Your task to perform on an android device: Check the news Image 0: 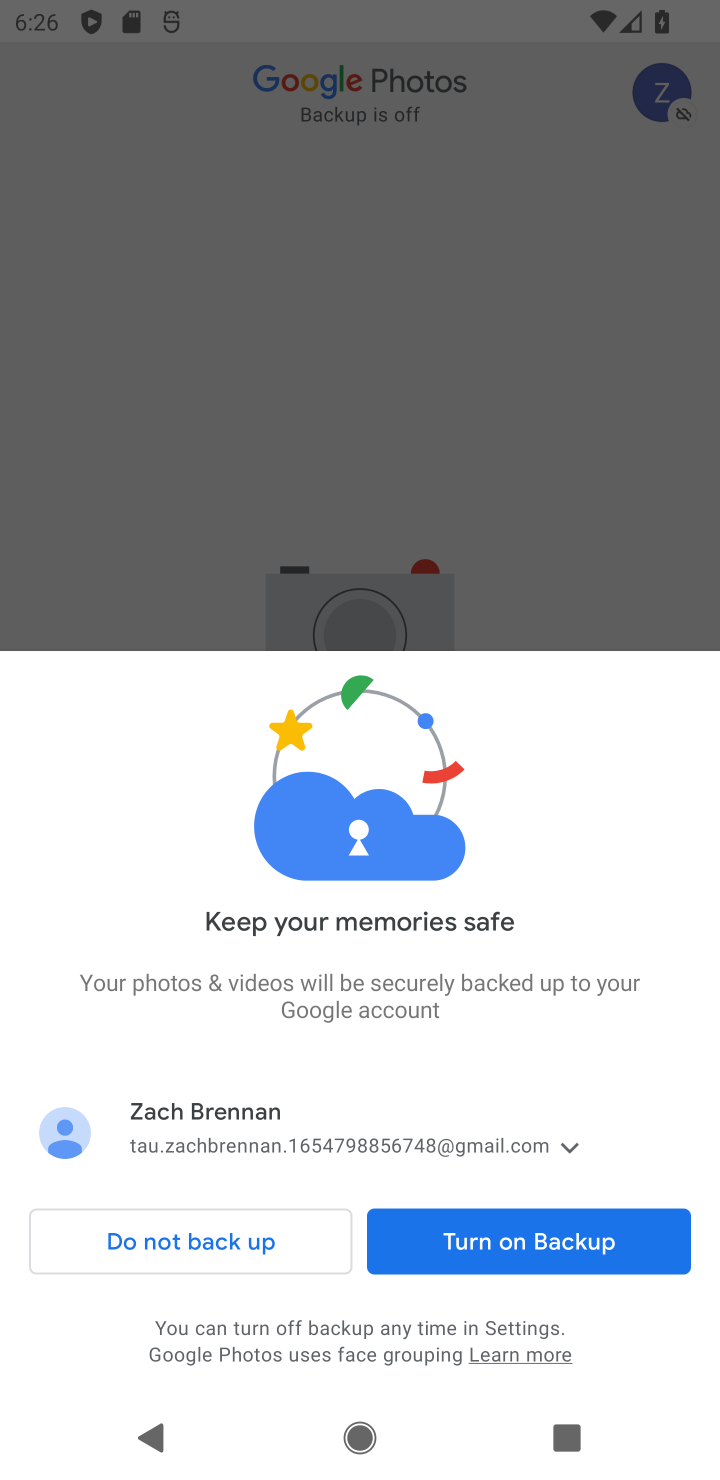
Step 0: press home button
Your task to perform on an android device: Check the news Image 1: 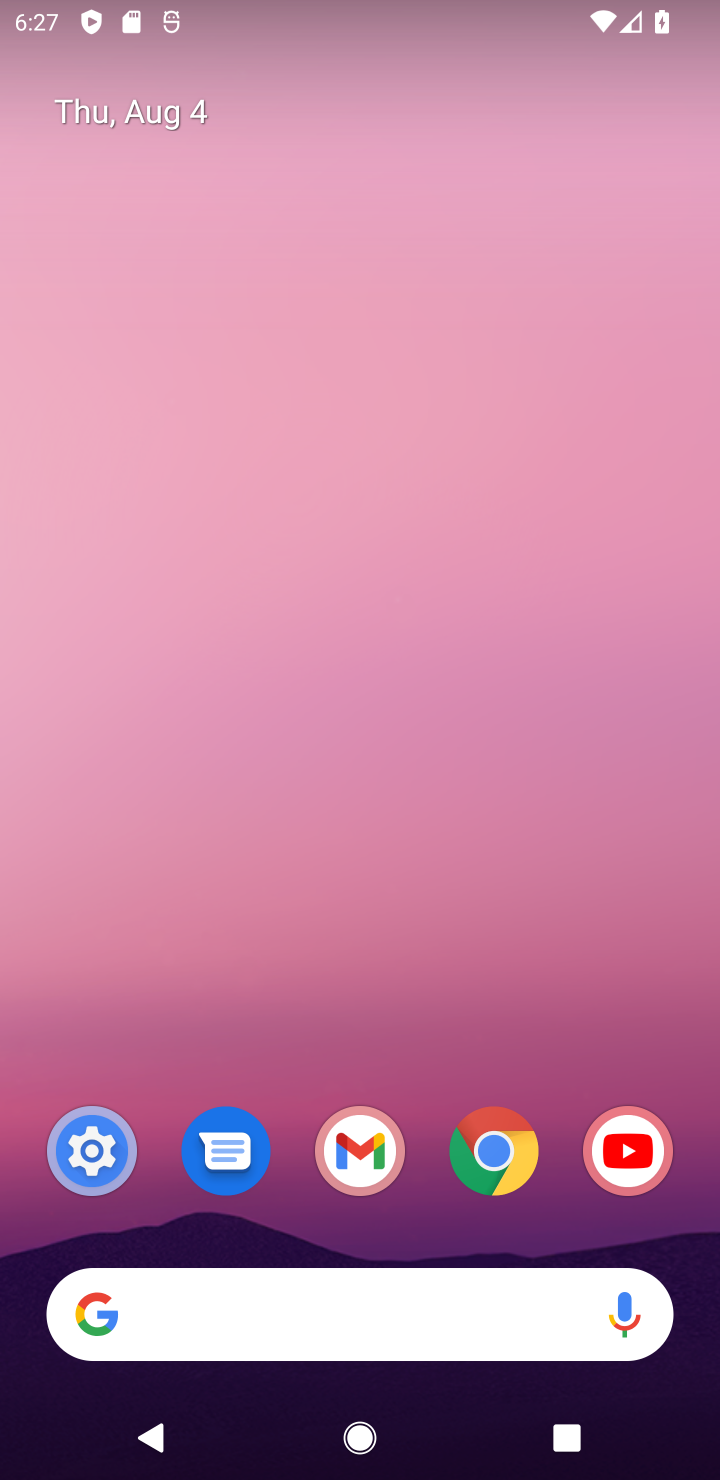
Step 1: drag from (355, 925) to (337, 105)
Your task to perform on an android device: Check the news Image 2: 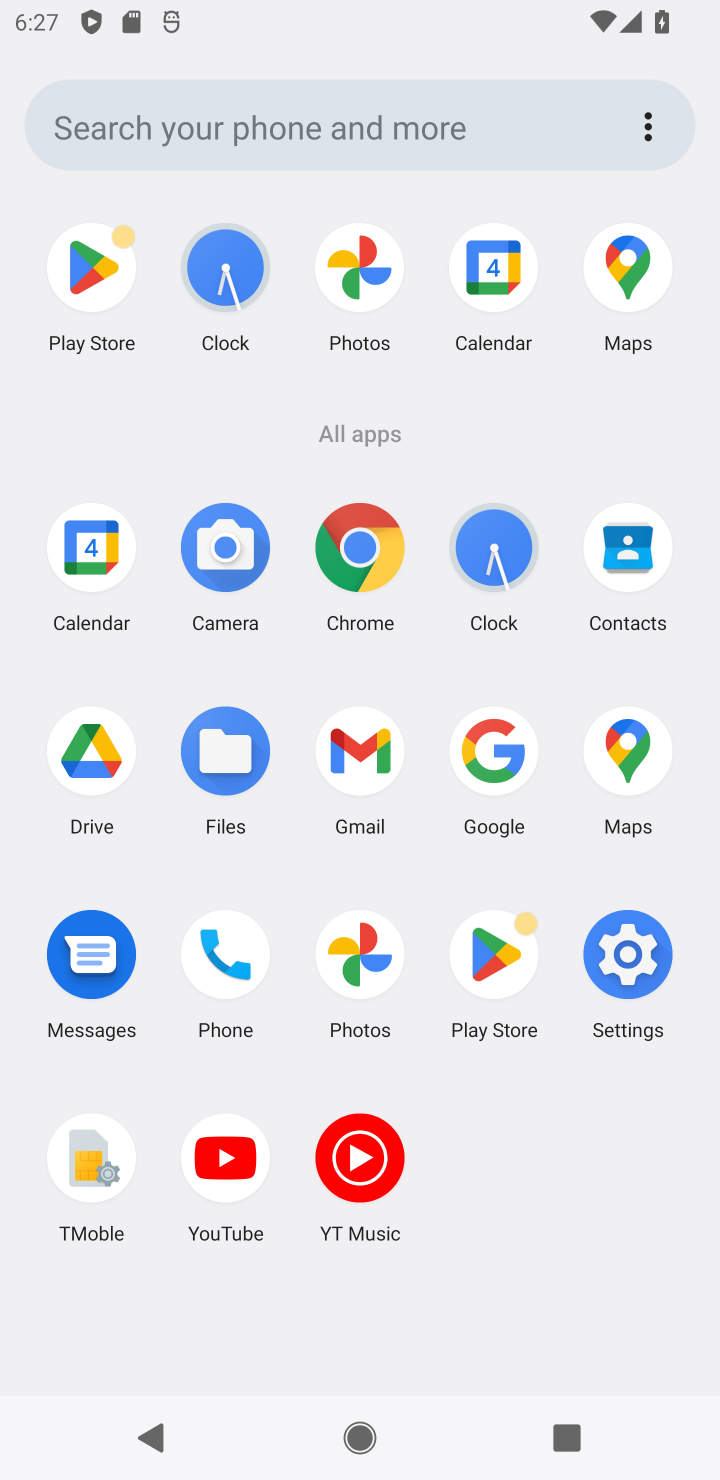
Step 2: press home button
Your task to perform on an android device: Check the news Image 3: 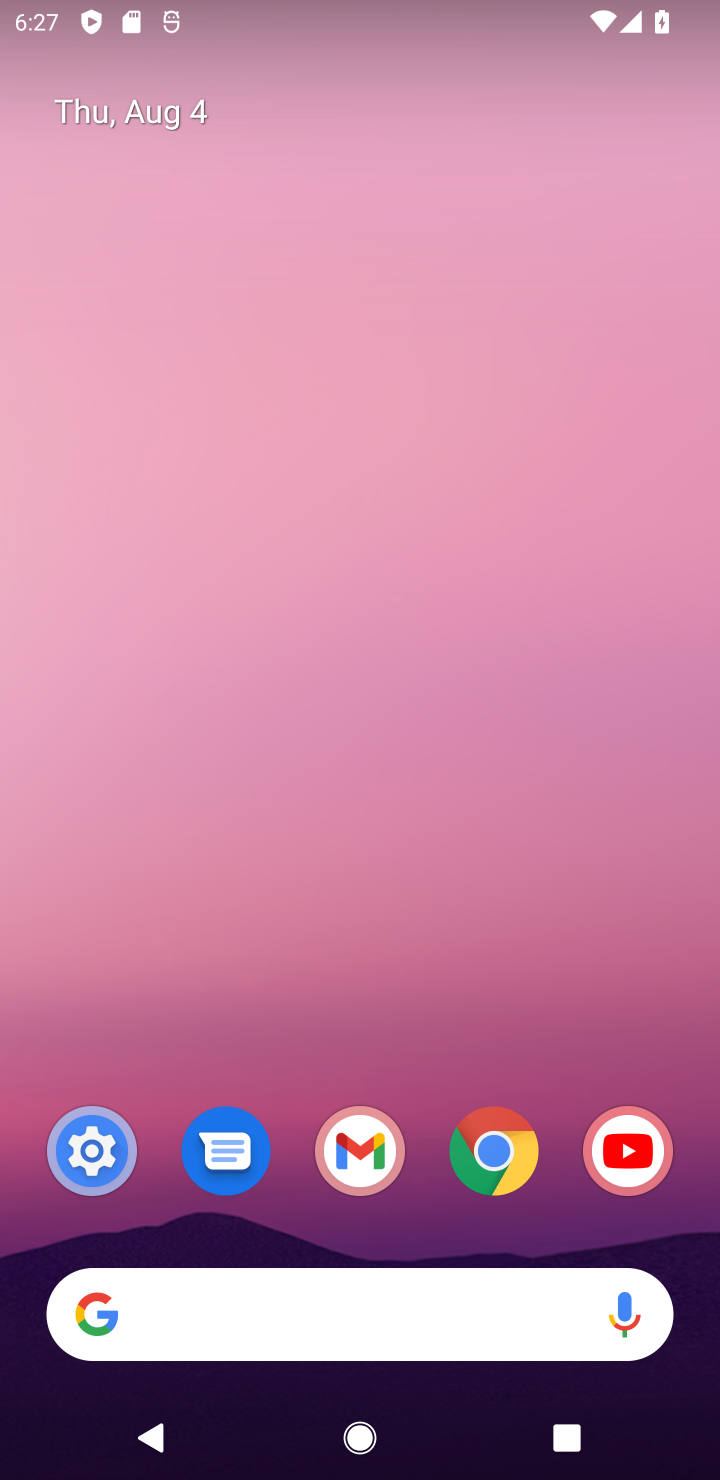
Step 3: click (386, 1332)
Your task to perform on an android device: Check the news Image 4: 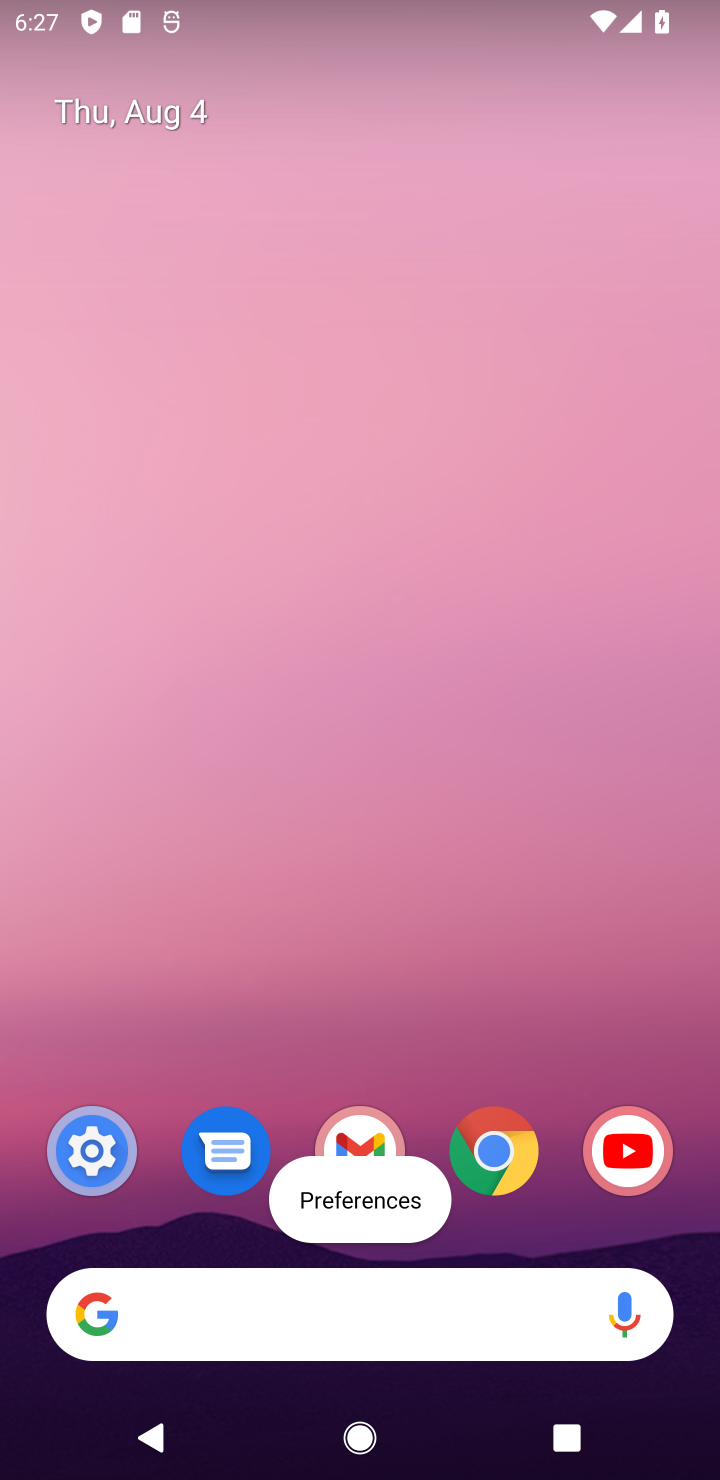
Step 4: click (380, 1324)
Your task to perform on an android device: Check the news Image 5: 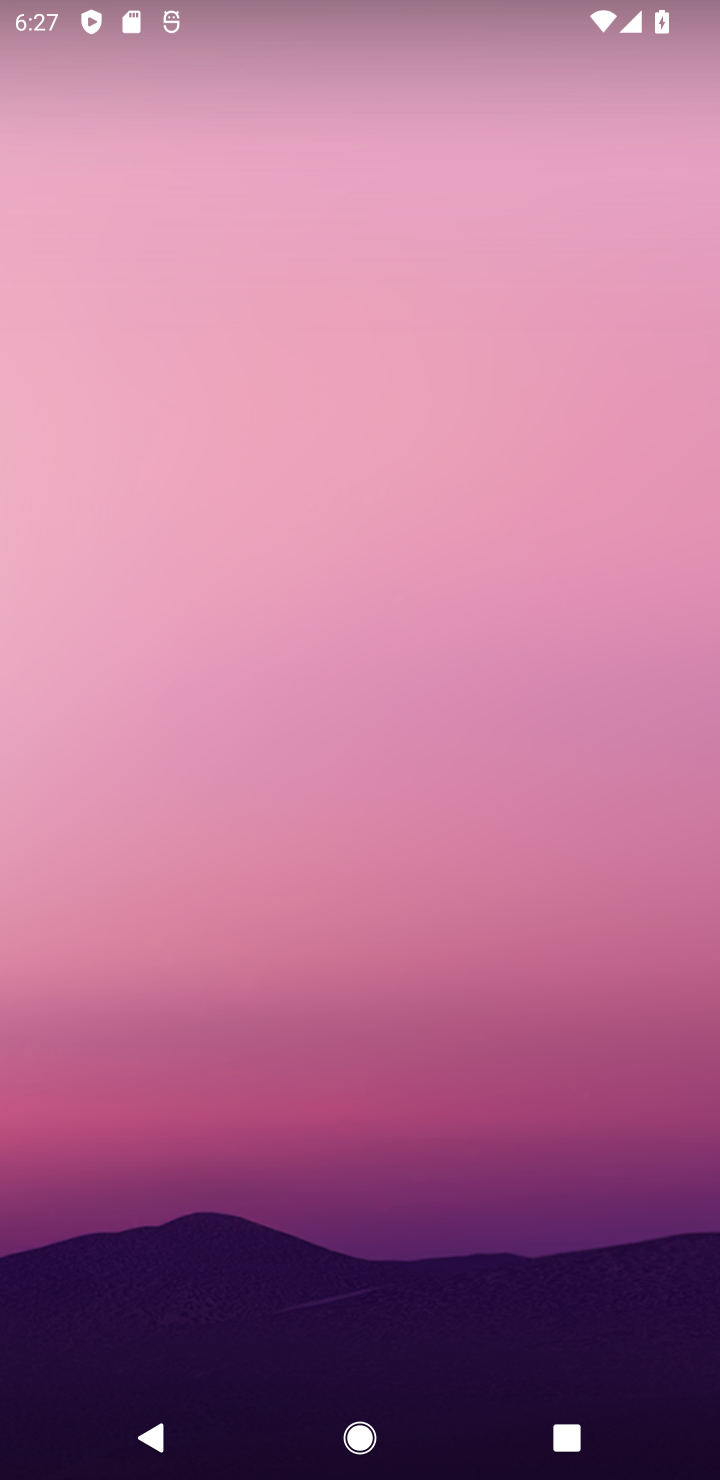
Step 5: click (376, 1326)
Your task to perform on an android device: Check the news Image 6: 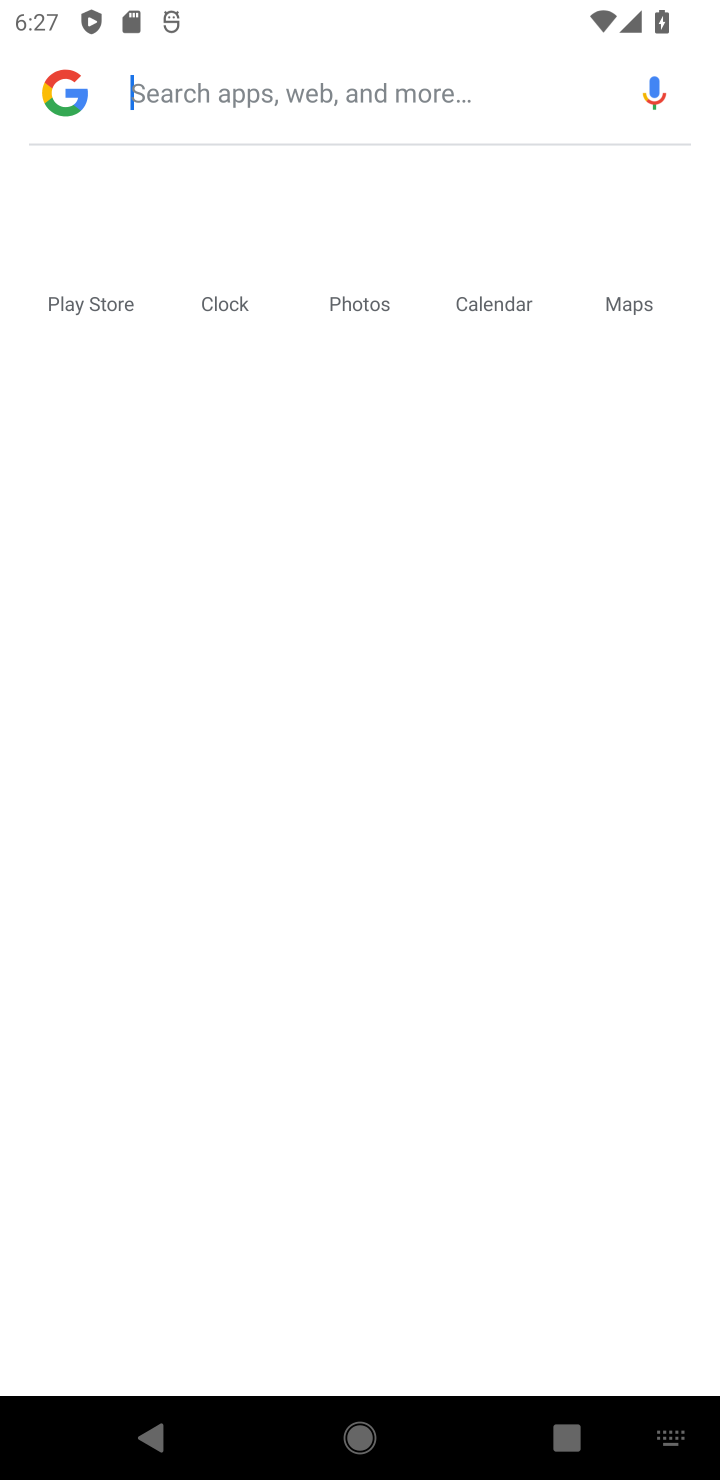
Step 6: type "news"
Your task to perform on an android device: Check the news Image 7: 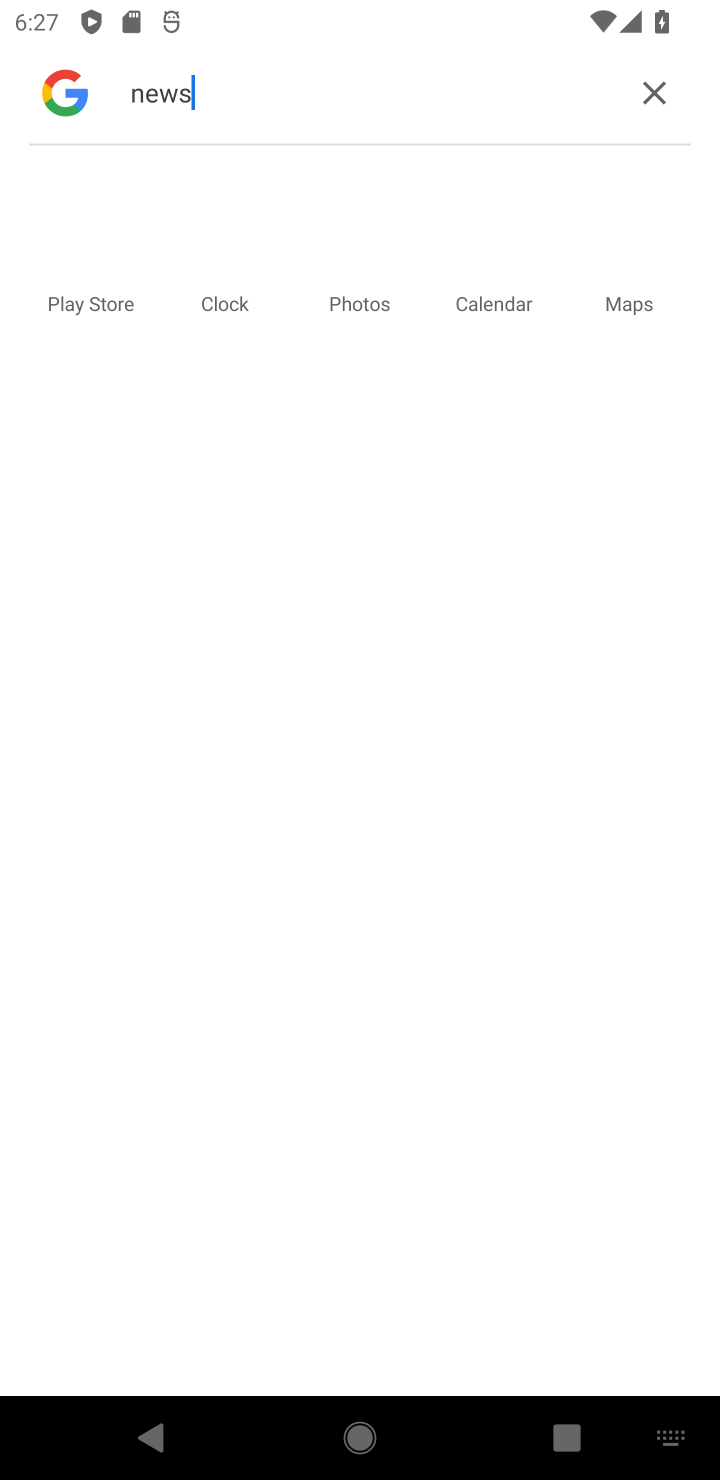
Step 7: drag from (238, 699) to (296, 959)
Your task to perform on an android device: Check the news Image 8: 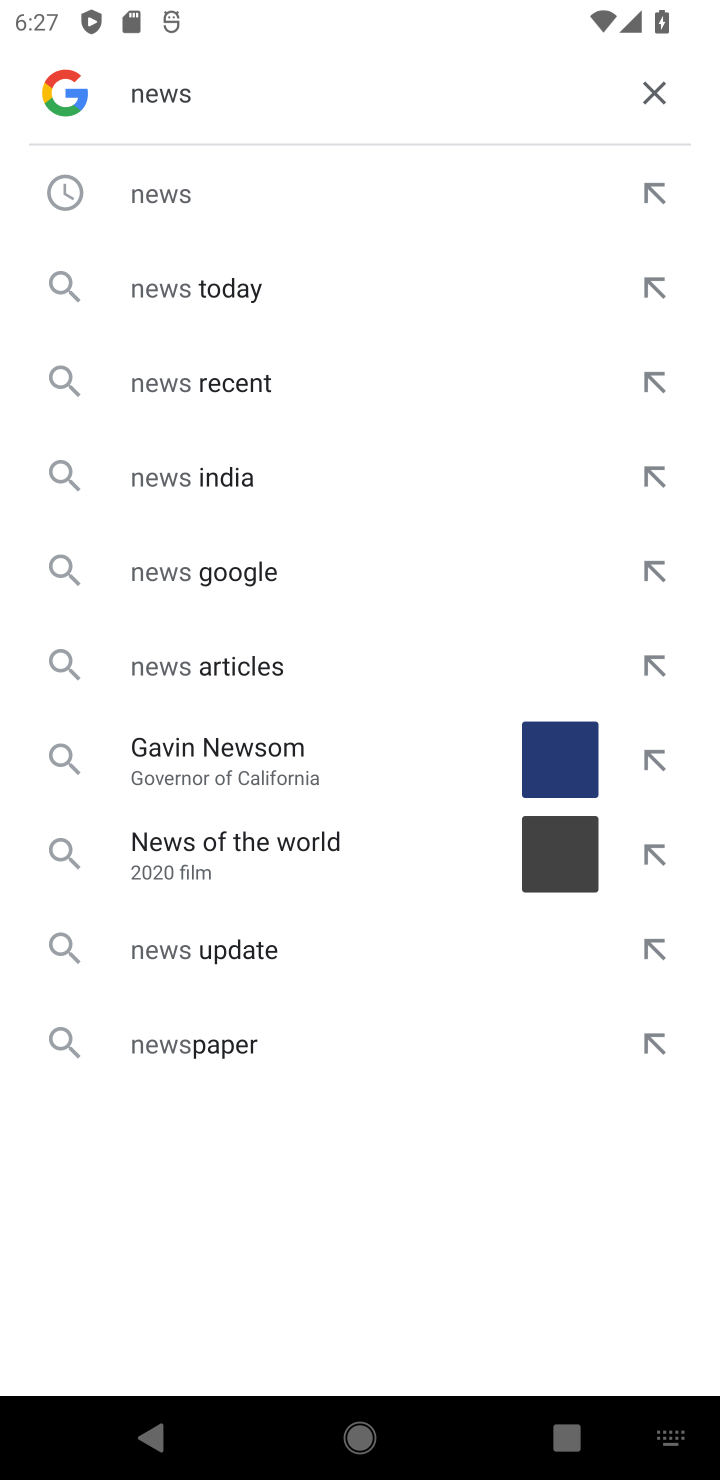
Step 8: click (175, 203)
Your task to perform on an android device: Check the news Image 9: 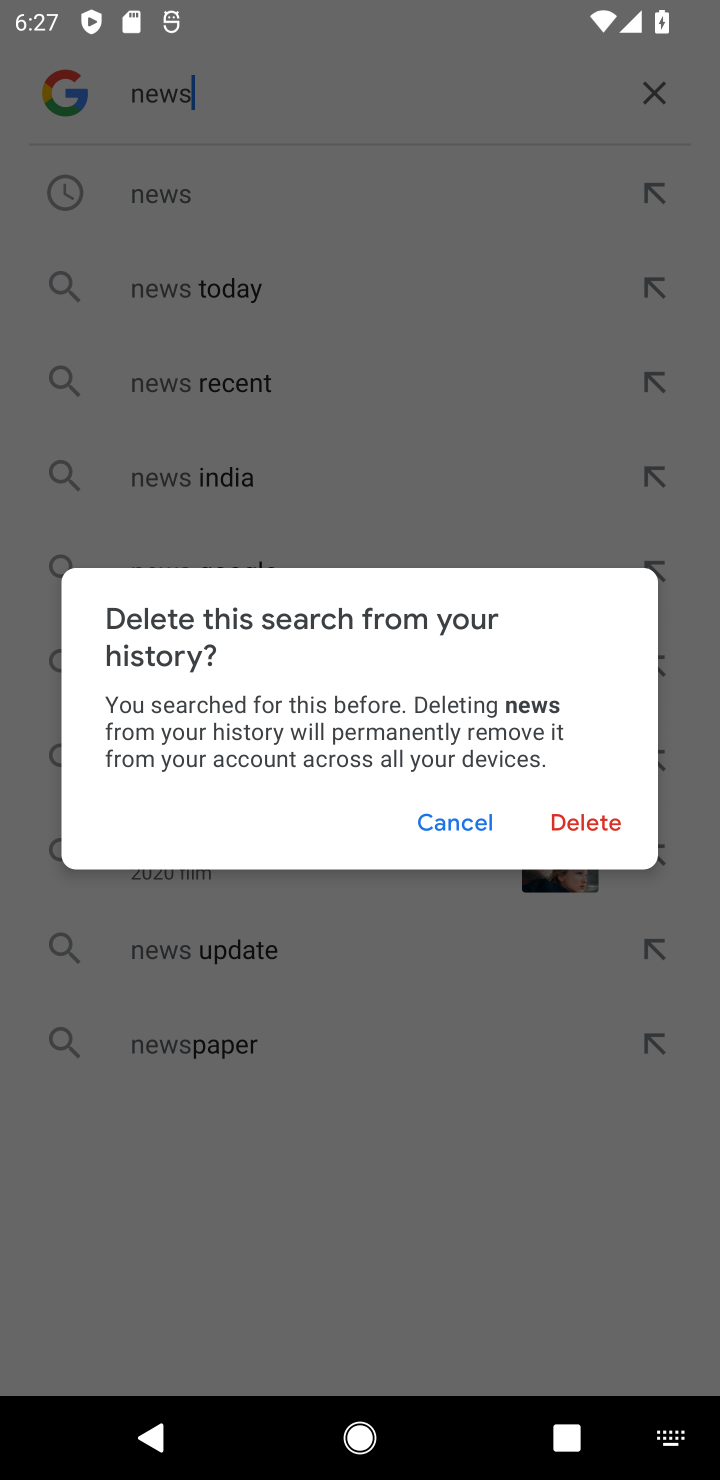
Step 9: click (472, 825)
Your task to perform on an android device: Check the news Image 10: 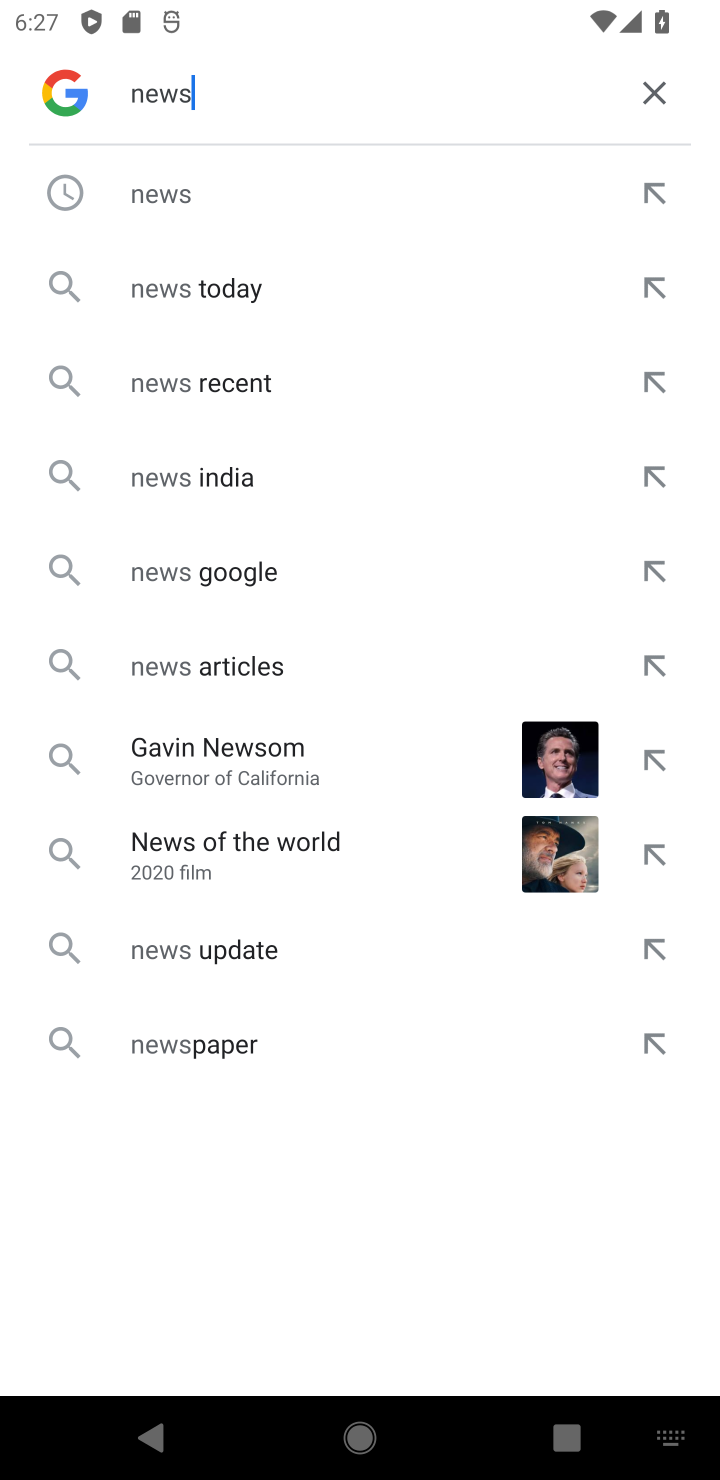
Step 10: click (195, 285)
Your task to perform on an android device: Check the news Image 11: 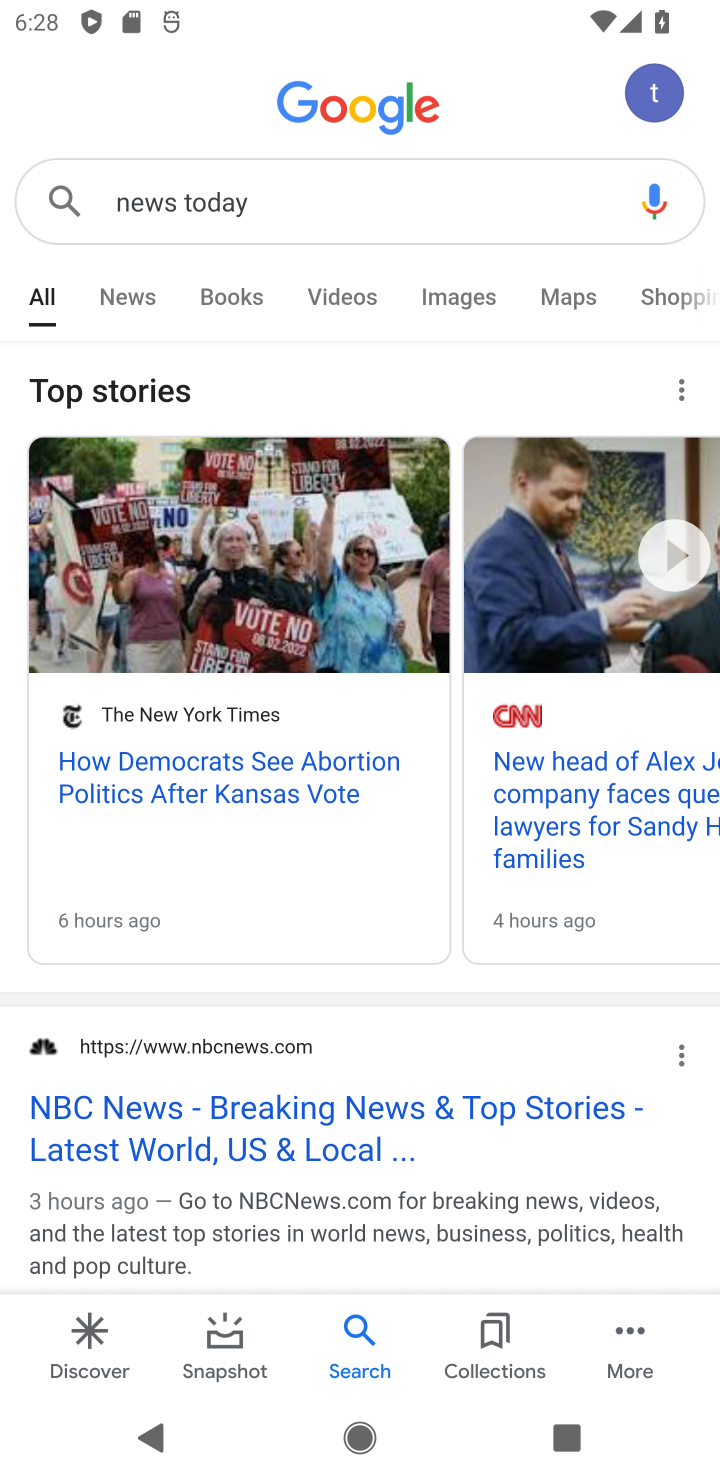
Step 11: task complete